Your task to perform on an android device: Do I have any events tomorrow? Image 0: 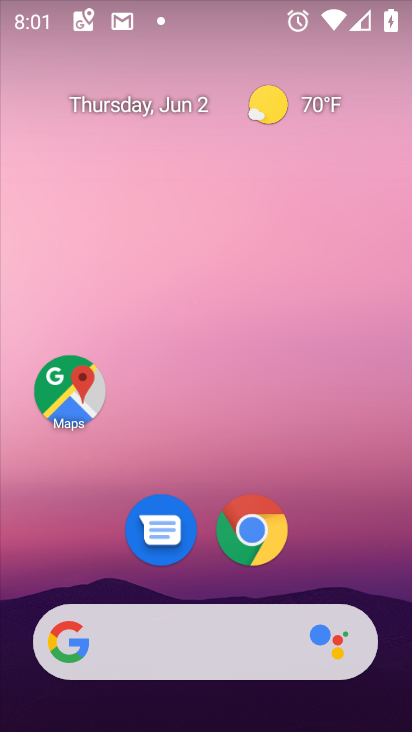
Step 0: drag from (228, 603) to (243, 296)
Your task to perform on an android device: Do I have any events tomorrow? Image 1: 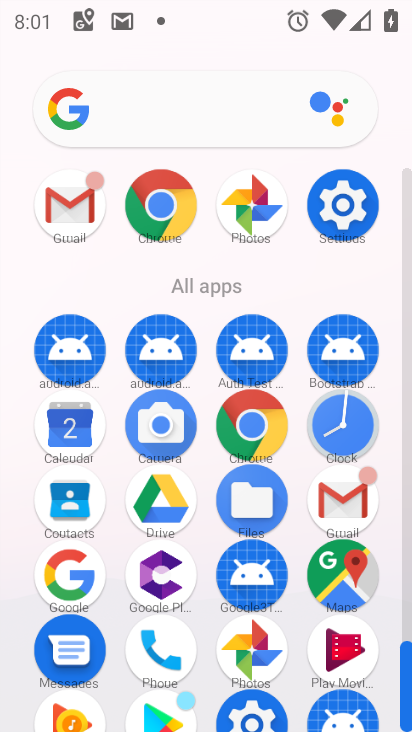
Step 1: click (65, 433)
Your task to perform on an android device: Do I have any events tomorrow? Image 2: 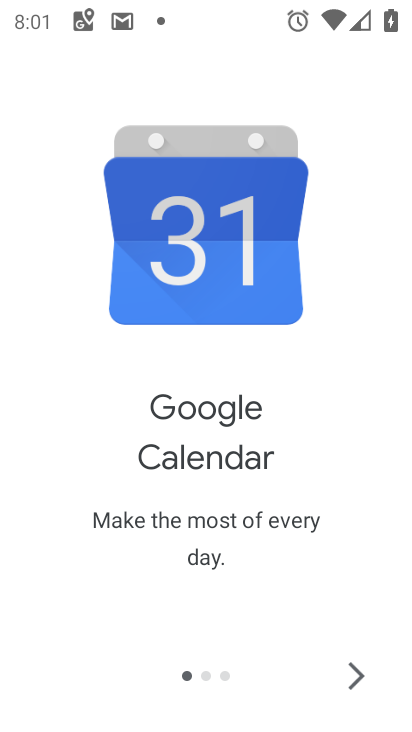
Step 2: click (357, 672)
Your task to perform on an android device: Do I have any events tomorrow? Image 3: 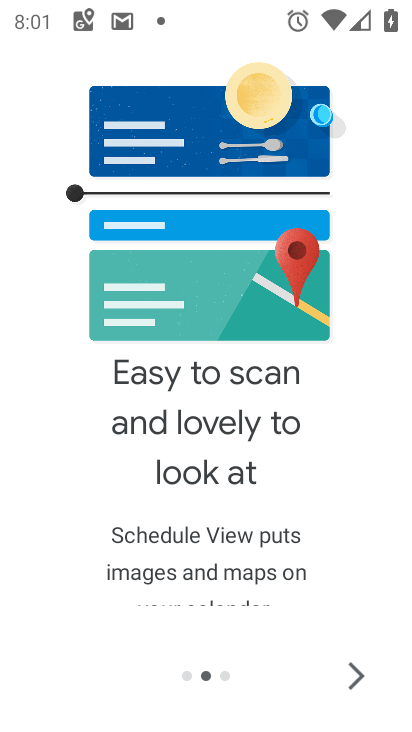
Step 3: click (354, 670)
Your task to perform on an android device: Do I have any events tomorrow? Image 4: 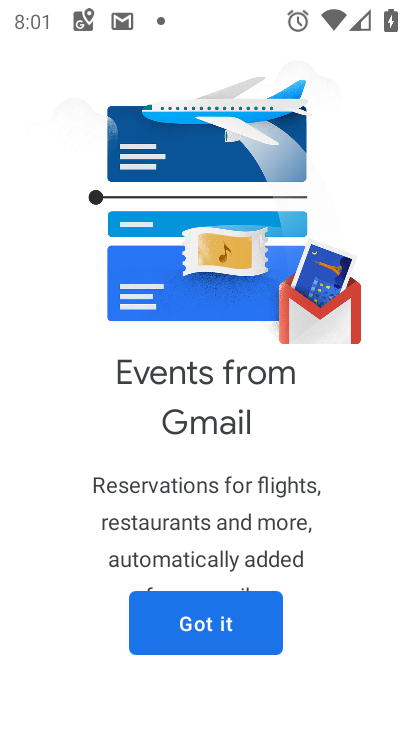
Step 4: click (200, 622)
Your task to perform on an android device: Do I have any events tomorrow? Image 5: 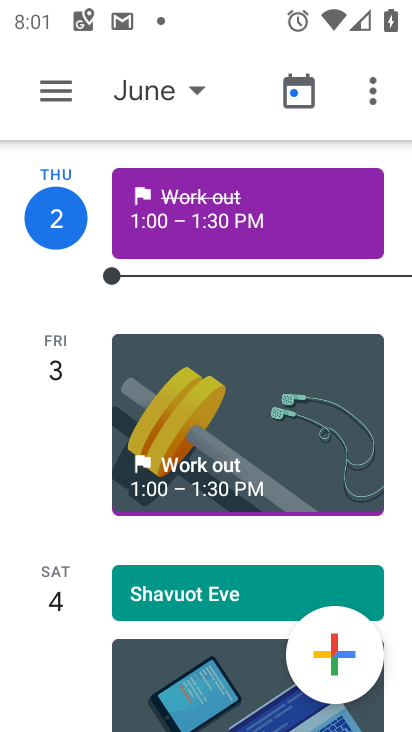
Step 5: click (195, 388)
Your task to perform on an android device: Do I have any events tomorrow? Image 6: 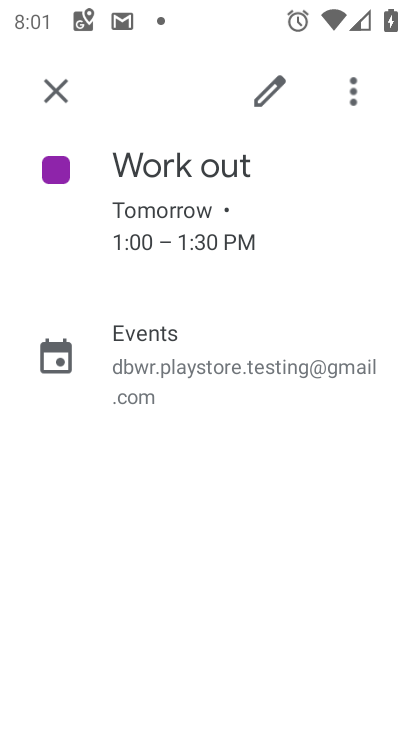
Step 6: task complete